Your task to perform on an android device: turn smart compose on in the gmail app Image 0: 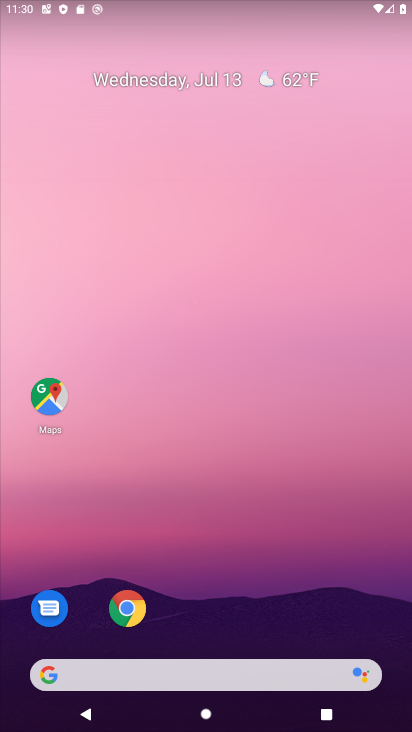
Step 0: click (253, 70)
Your task to perform on an android device: turn smart compose on in the gmail app Image 1: 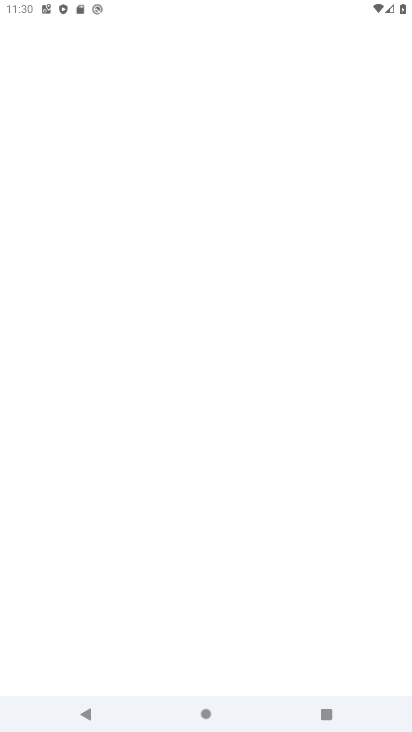
Step 1: press home button
Your task to perform on an android device: turn smart compose on in the gmail app Image 2: 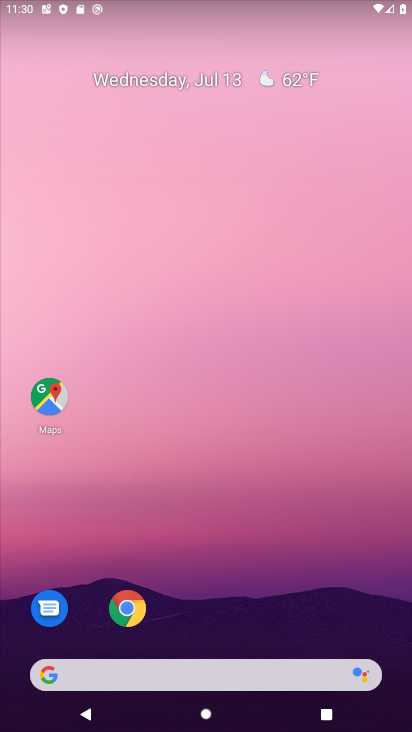
Step 2: drag from (239, 725) to (295, 125)
Your task to perform on an android device: turn smart compose on in the gmail app Image 3: 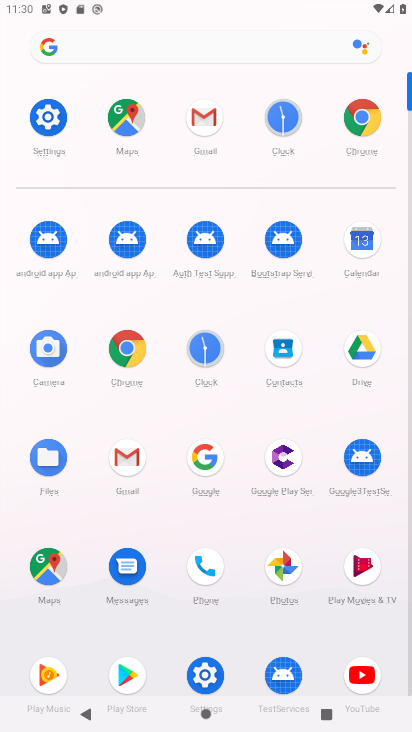
Step 3: click (207, 130)
Your task to perform on an android device: turn smart compose on in the gmail app Image 4: 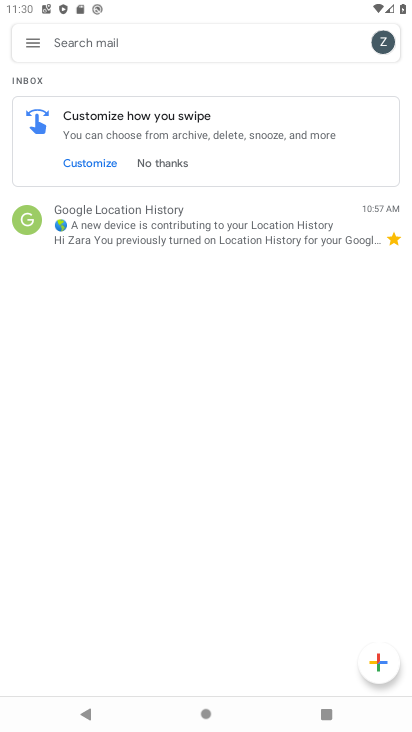
Step 4: click (37, 42)
Your task to perform on an android device: turn smart compose on in the gmail app Image 5: 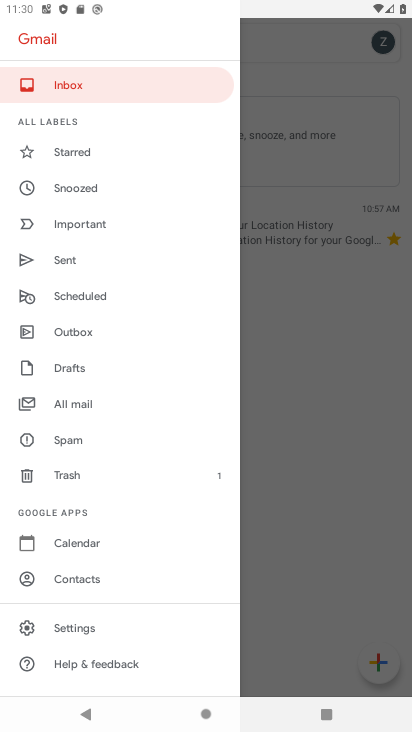
Step 5: click (75, 628)
Your task to perform on an android device: turn smart compose on in the gmail app Image 6: 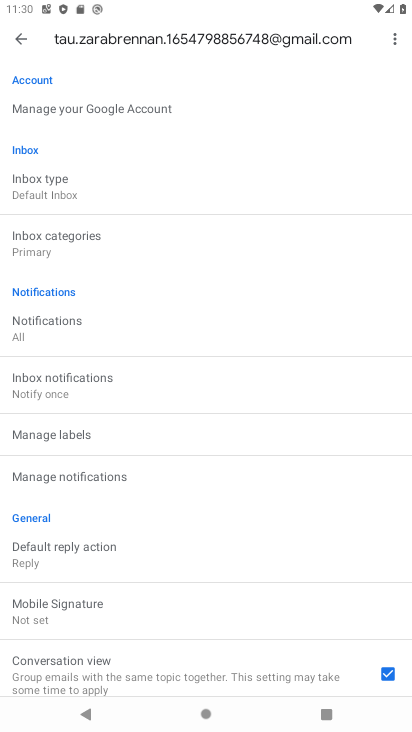
Step 6: task complete